Your task to perform on an android device: toggle improve location accuracy Image 0: 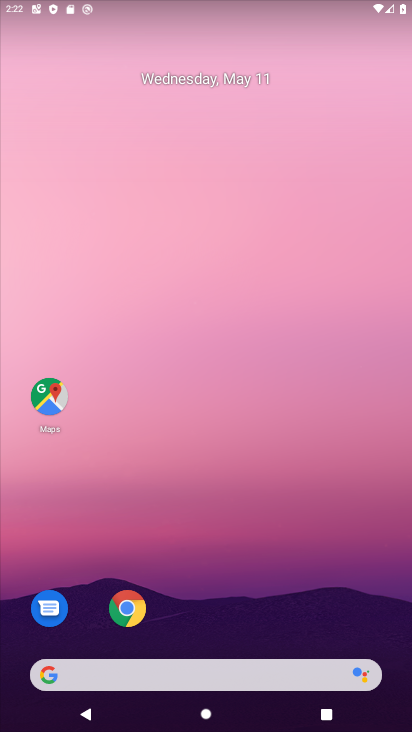
Step 0: drag from (217, 643) to (265, 265)
Your task to perform on an android device: toggle improve location accuracy Image 1: 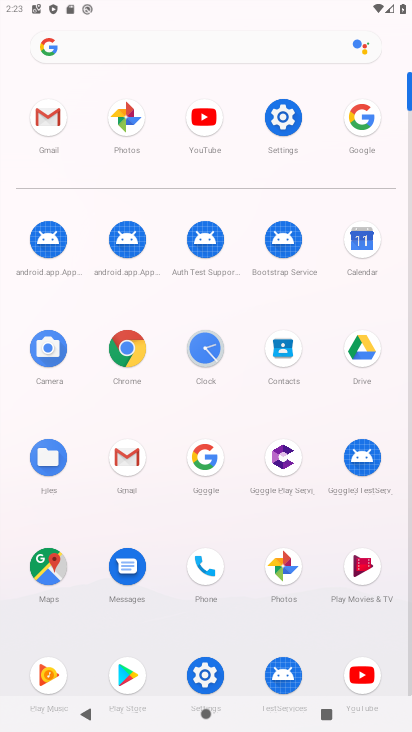
Step 1: click (279, 116)
Your task to perform on an android device: toggle improve location accuracy Image 2: 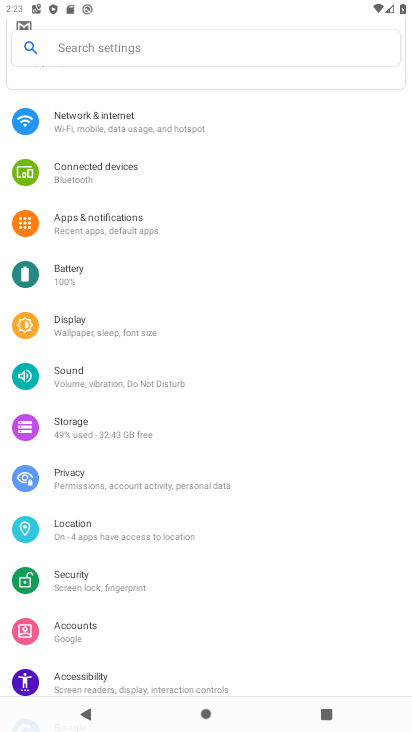
Step 2: click (92, 531)
Your task to perform on an android device: toggle improve location accuracy Image 3: 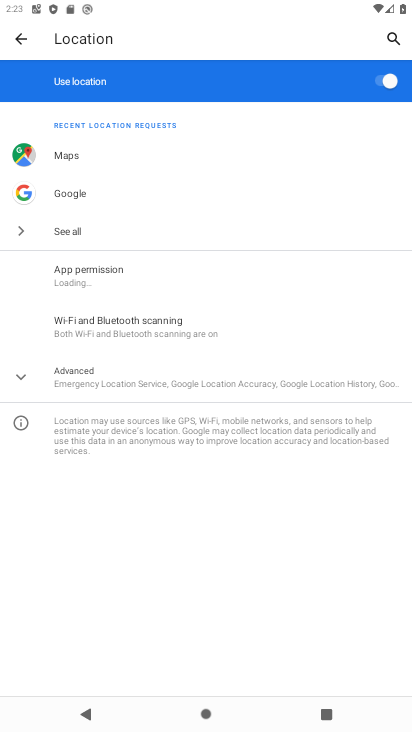
Step 3: click (131, 377)
Your task to perform on an android device: toggle improve location accuracy Image 4: 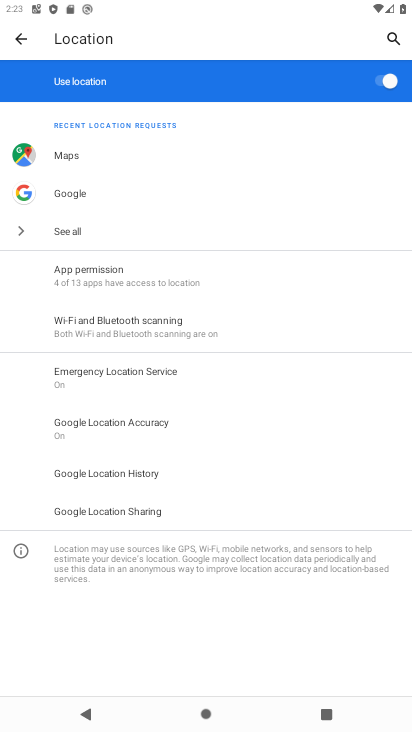
Step 4: click (116, 427)
Your task to perform on an android device: toggle improve location accuracy Image 5: 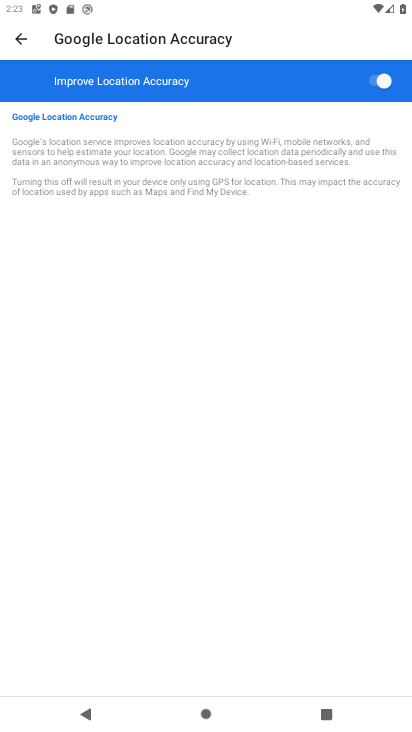
Step 5: click (374, 80)
Your task to perform on an android device: toggle improve location accuracy Image 6: 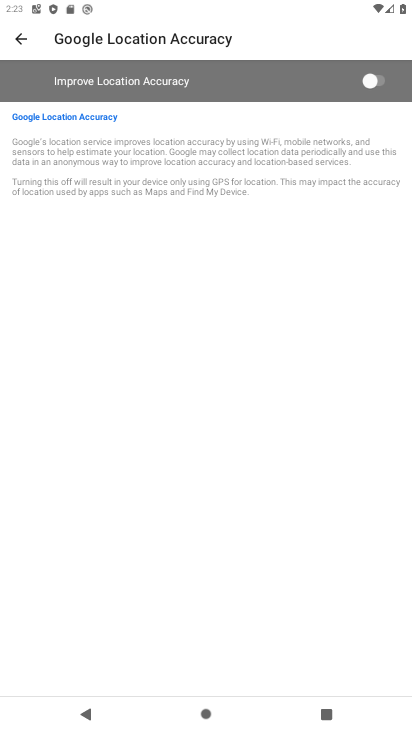
Step 6: task complete